Your task to perform on an android device: show emergency info Image 0: 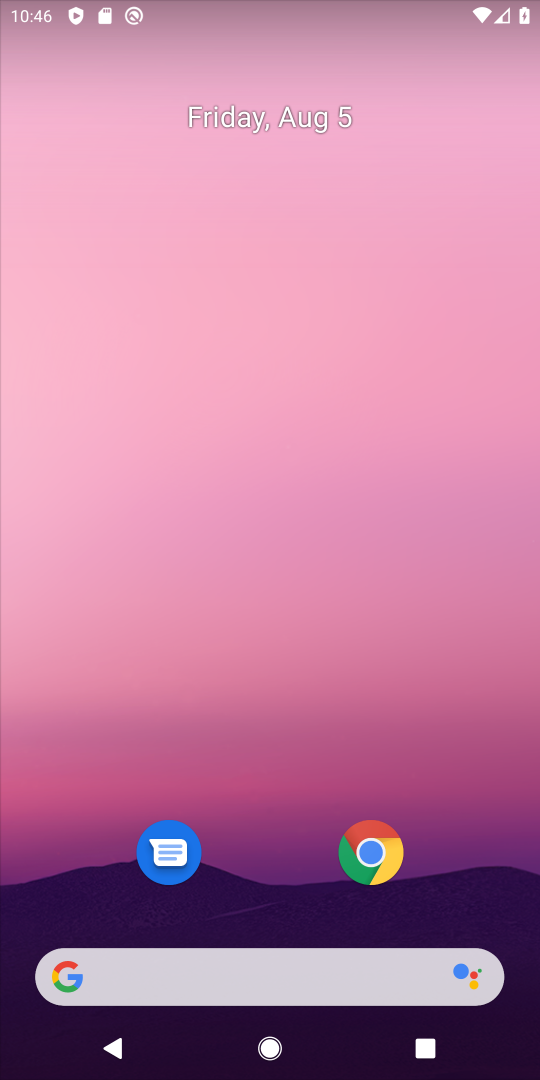
Step 0: drag from (265, 632) to (265, 540)
Your task to perform on an android device: show emergency info Image 1: 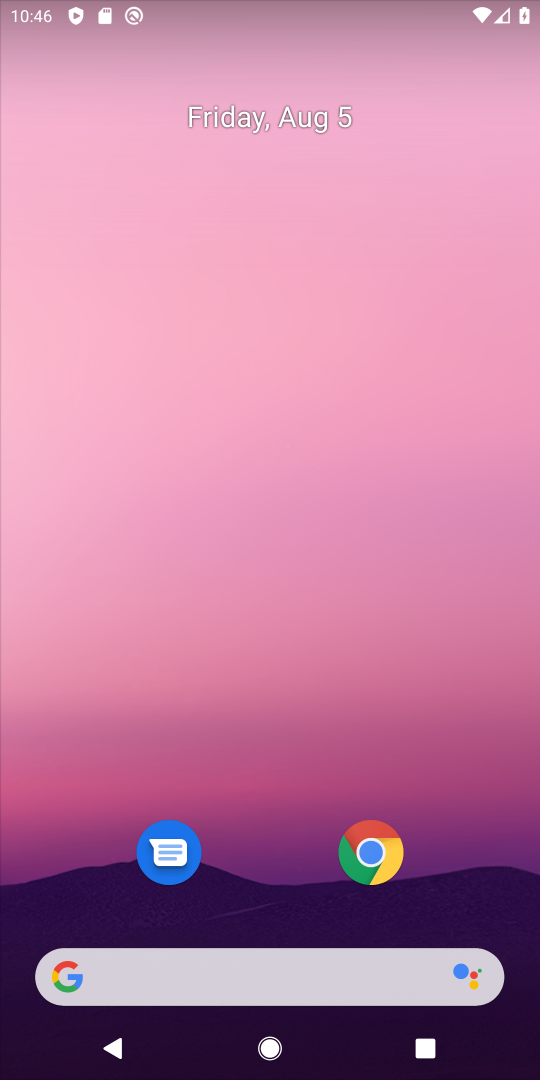
Step 1: drag from (251, 968) to (248, 479)
Your task to perform on an android device: show emergency info Image 2: 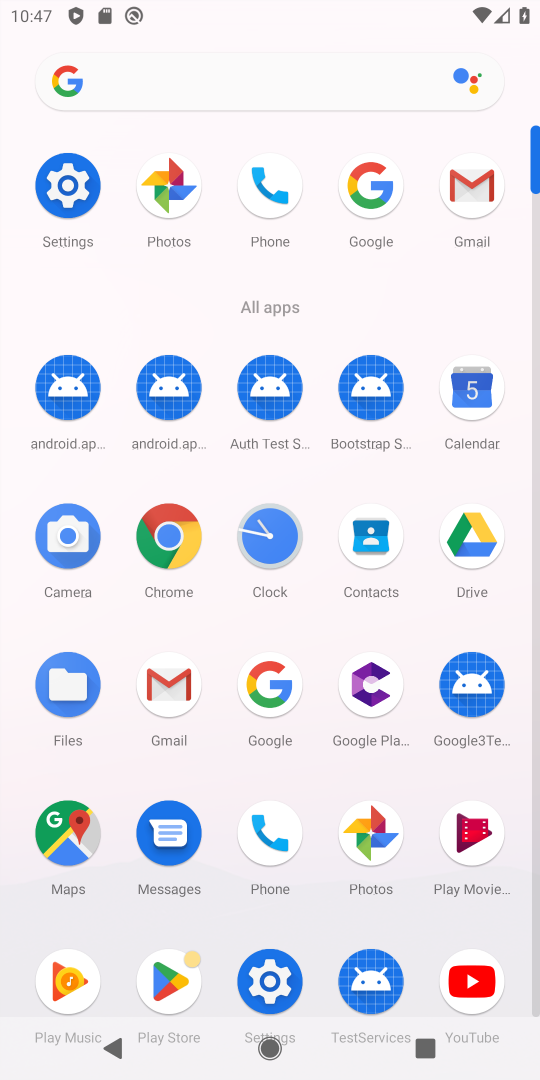
Step 2: click (62, 187)
Your task to perform on an android device: show emergency info Image 3: 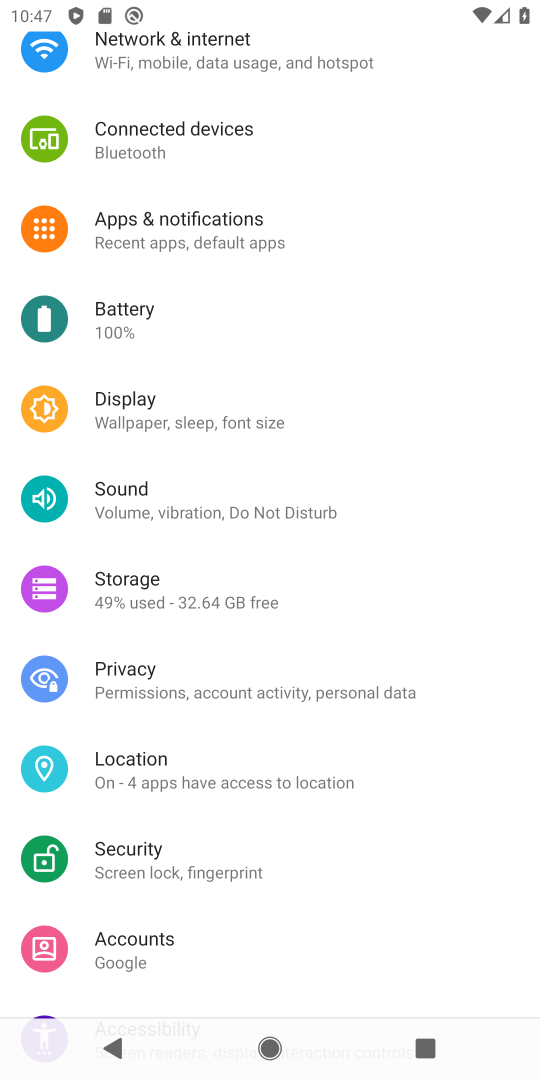
Step 3: drag from (166, 887) to (196, 520)
Your task to perform on an android device: show emergency info Image 4: 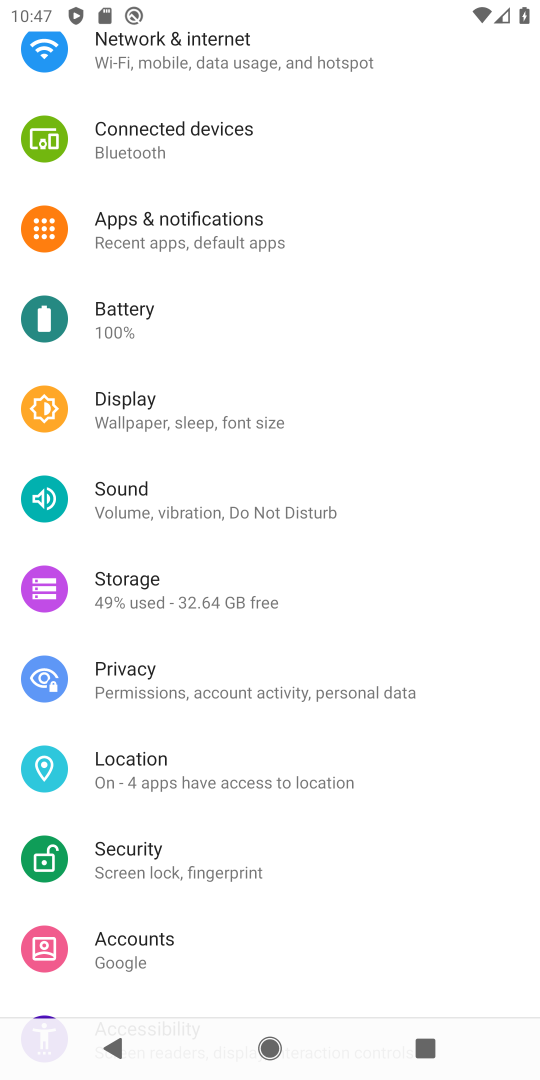
Step 4: drag from (108, 931) to (158, 534)
Your task to perform on an android device: show emergency info Image 5: 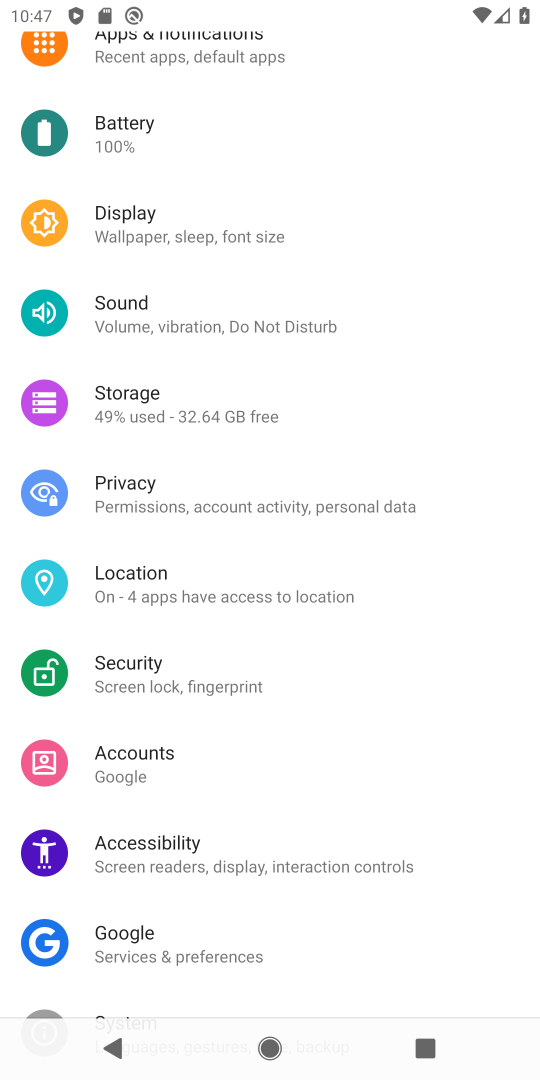
Step 5: drag from (165, 817) to (182, 608)
Your task to perform on an android device: show emergency info Image 6: 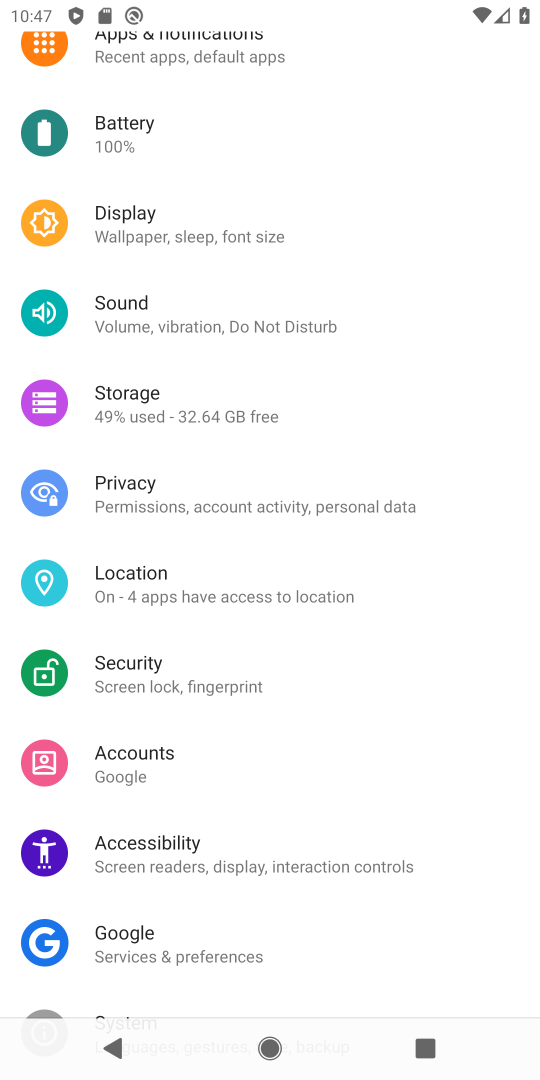
Step 6: drag from (131, 980) to (157, 443)
Your task to perform on an android device: show emergency info Image 7: 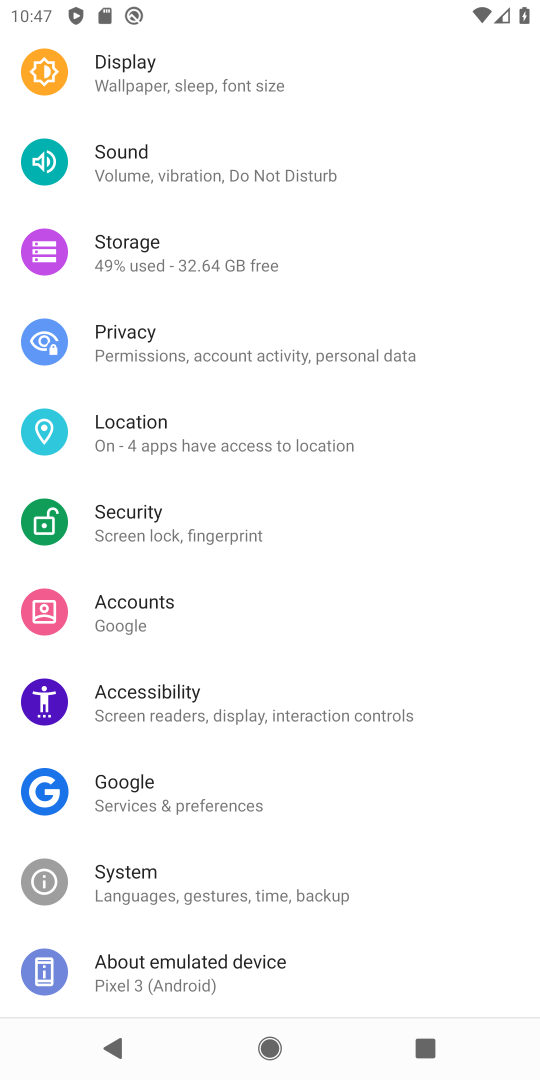
Step 7: click (155, 997)
Your task to perform on an android device: show emergency info Image 8: 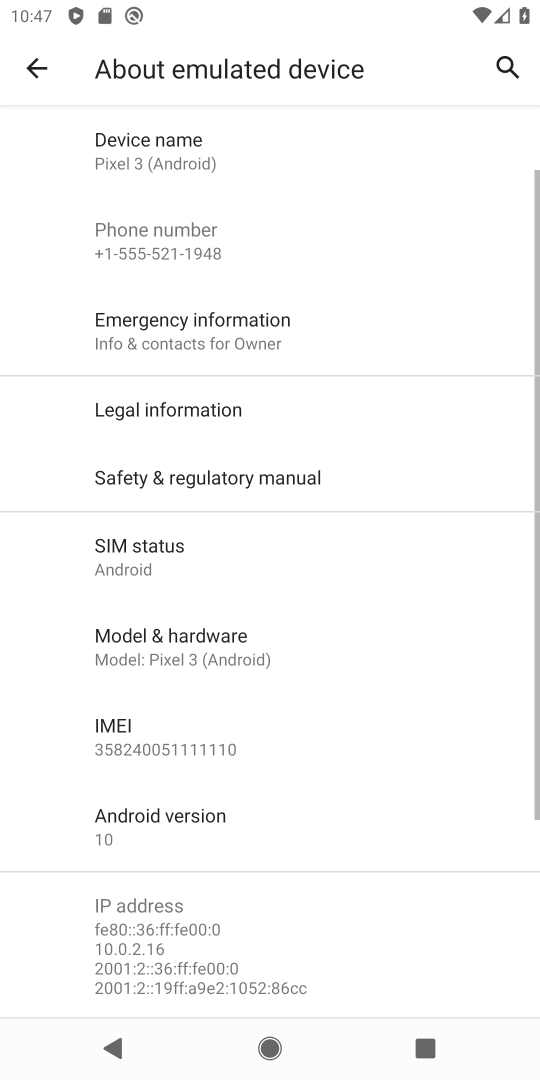
Step 8: click (179, 341)
Your task to perform on an android device: show emergency info Image 9: 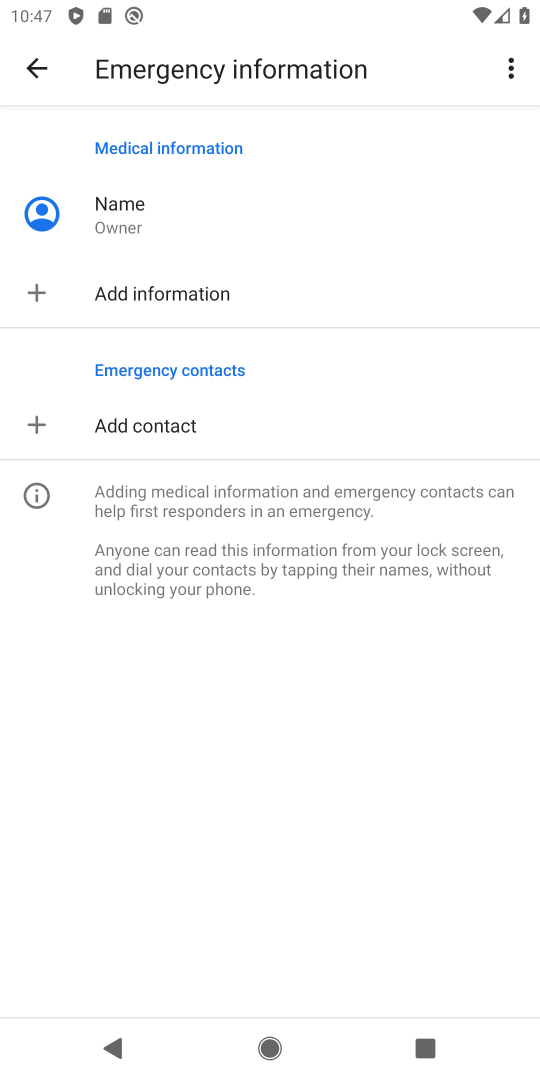
Step 9: task complete